Your task to perform on an android device: Toggle the flashlight Image 0: 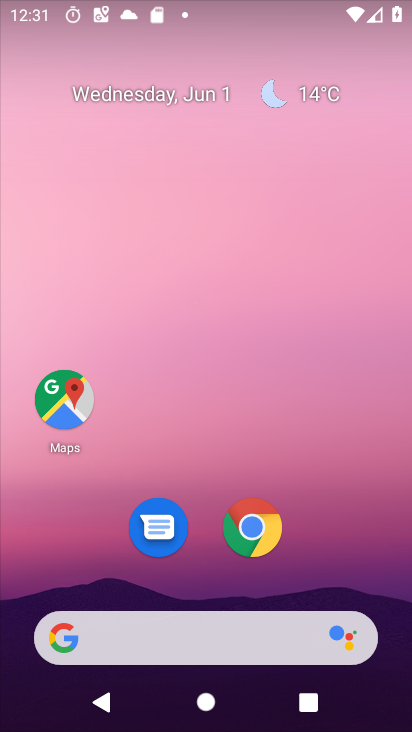
Step 0: drag from (197, 1) to (166, 648)
Your task to perform on an android device: Toggle the flashlight Image 1: 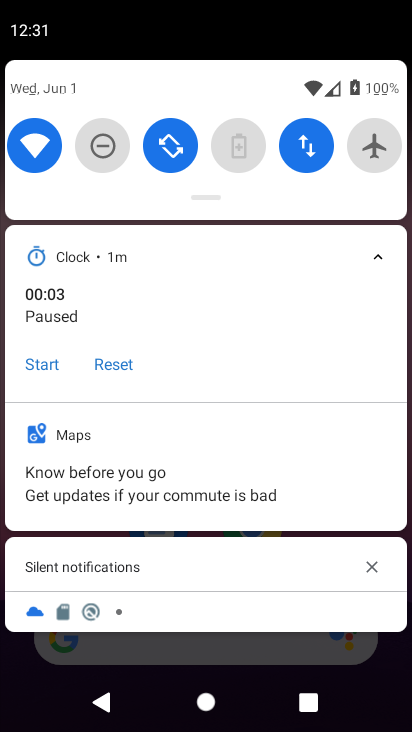
Step 1: task complete